Your task to perform on an android device: Go to Amazon Image 0: 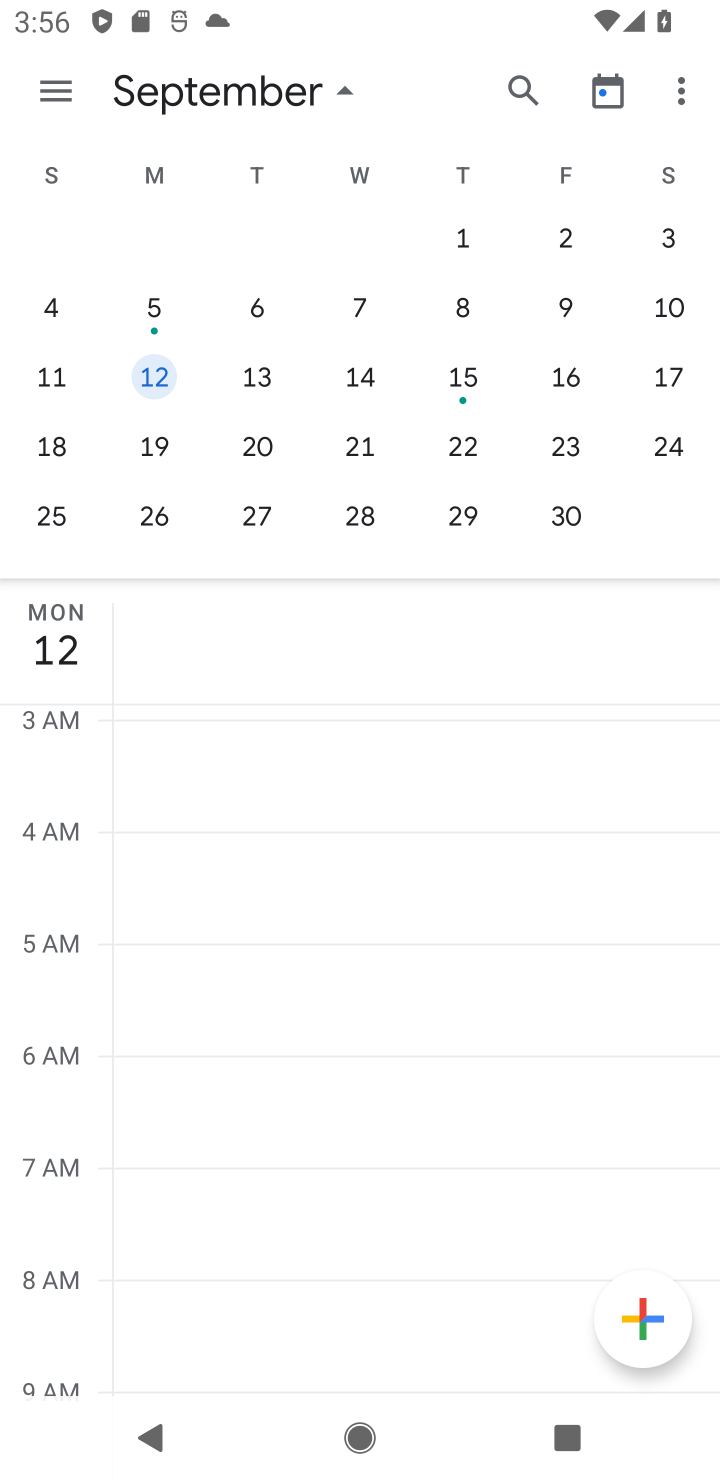
Step 0: press home button
Your task to perform on an android device: Go to Amazon Image 1: 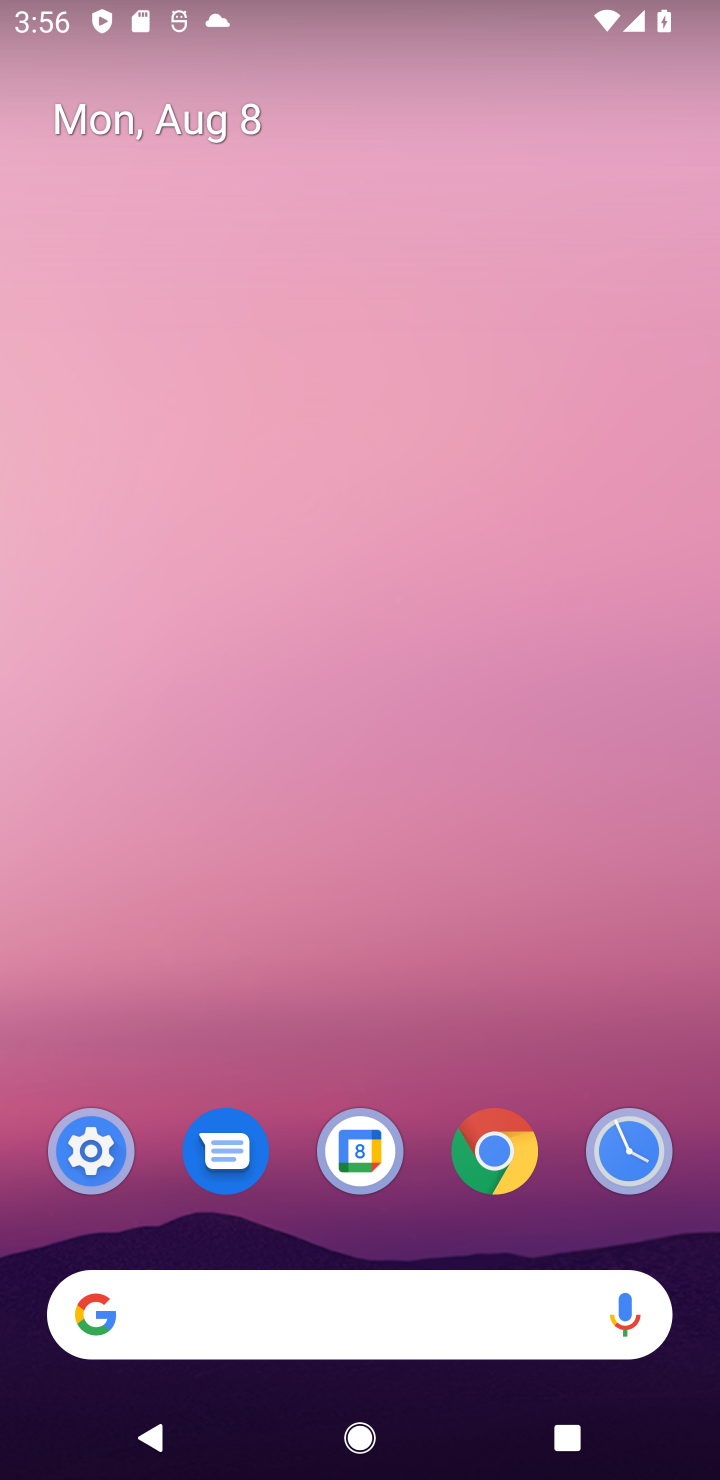
Step 1: click (475, 1190)
Your task to perform on an android device: Go to Amazon Image 2: 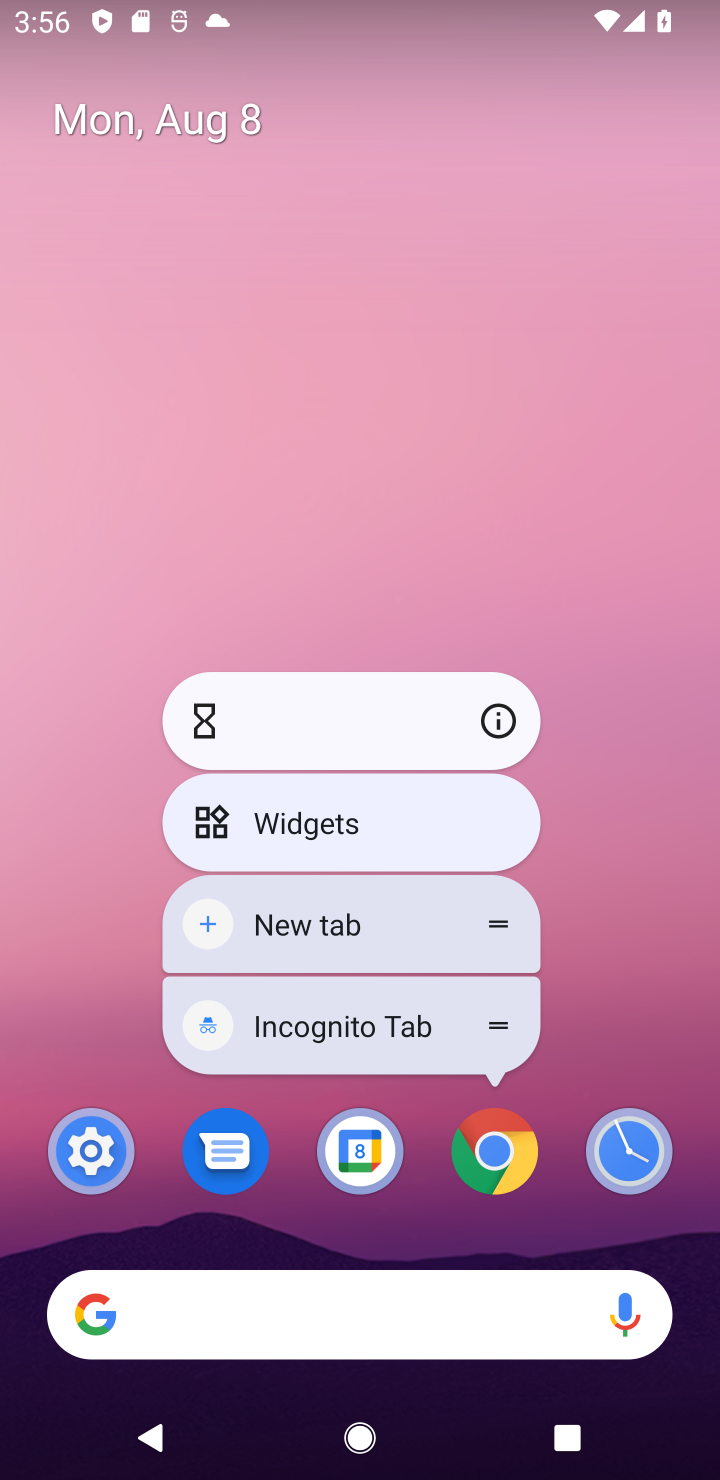
Step 2: click (477, 1192)
Your task to perform on an android device: Go to Amazon Image 3: 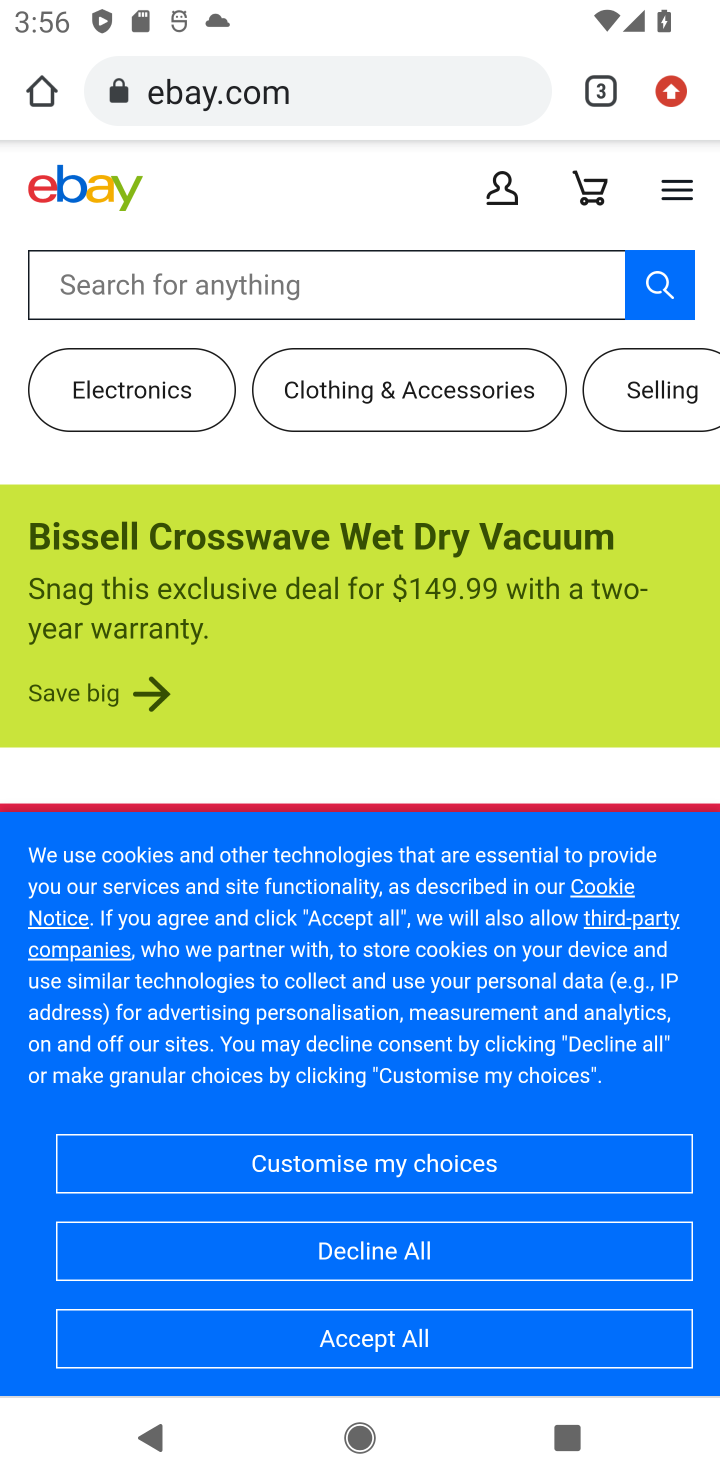
Step 3: click (593, 92)
Your task to perform on an android device: Go to Amazon Image 4: 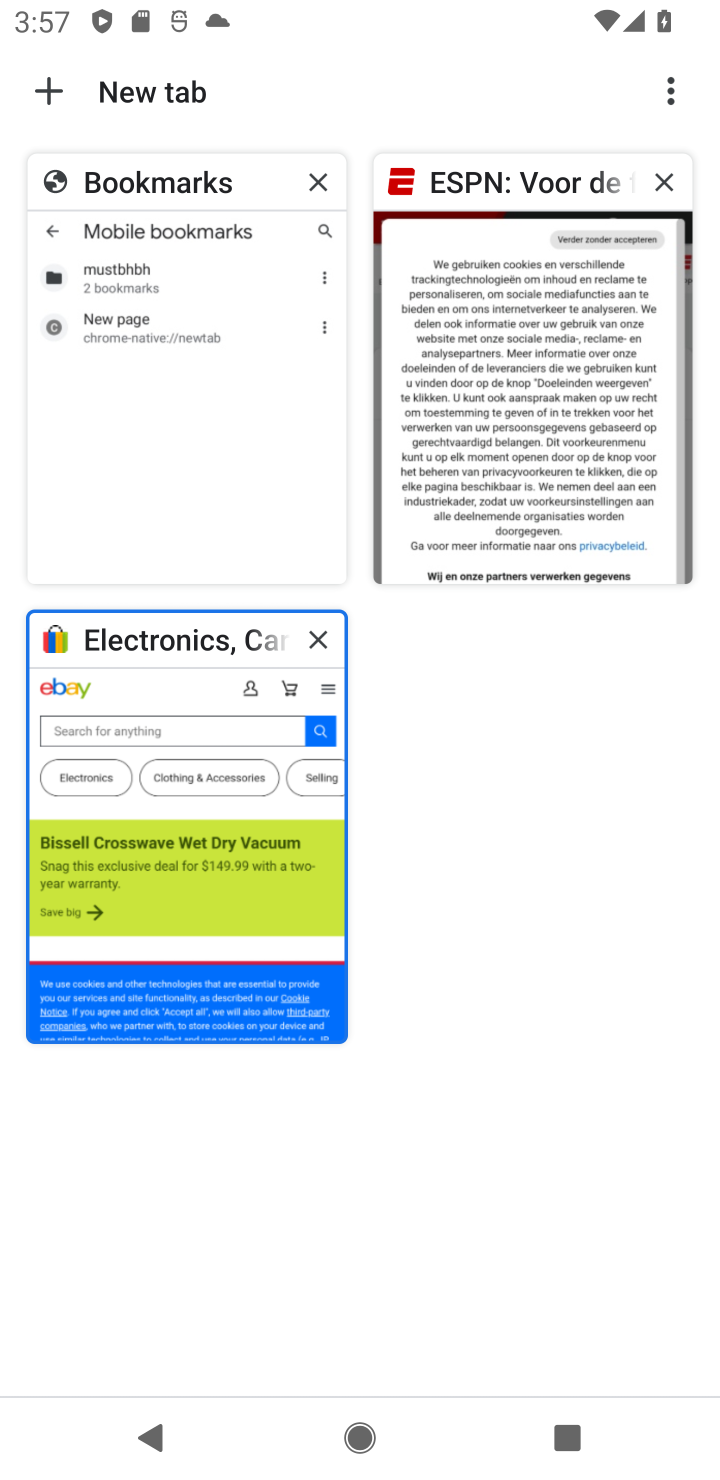
Step 4: click (47, 94)
Your task to perform on an android device: Go to Amazon Image 5: 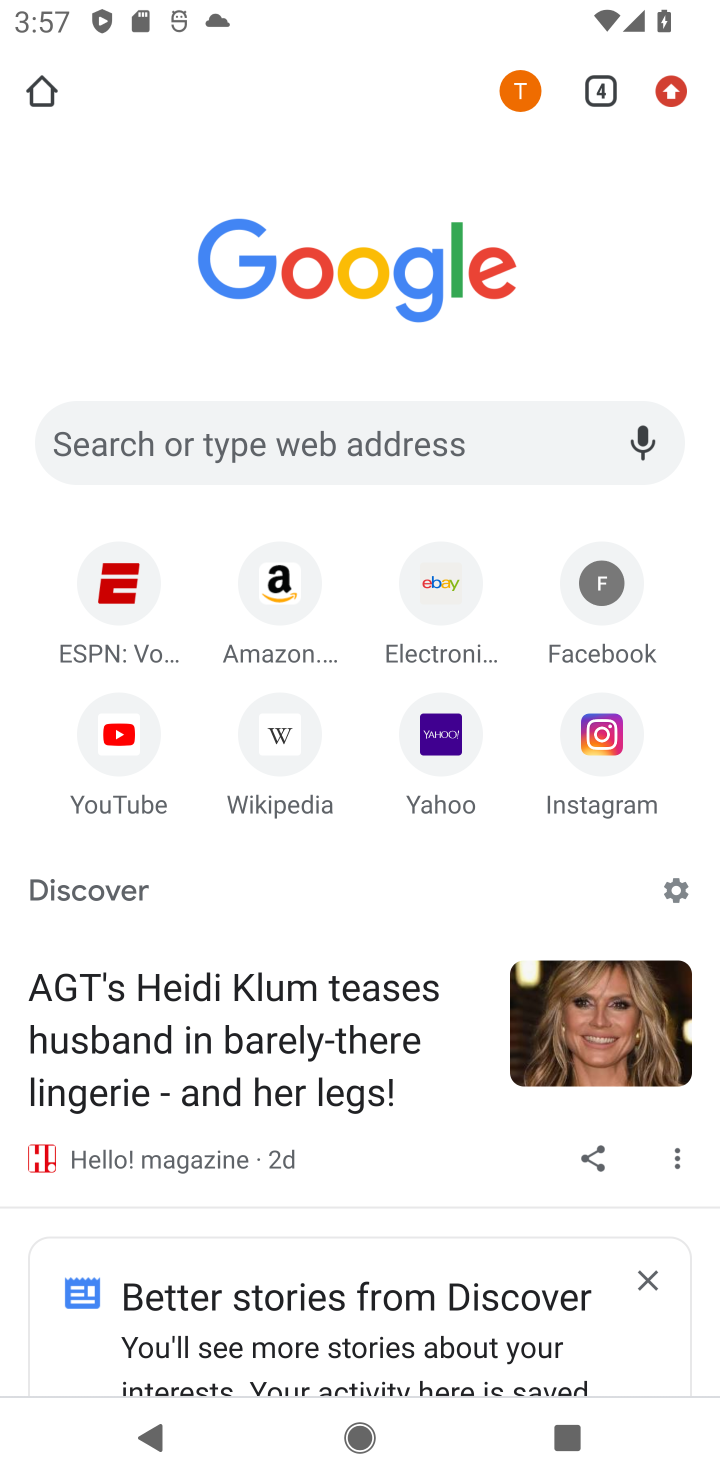
Step 5: click (309, 611)
Your task to perform on an android device: Go to Amazon Image 6: 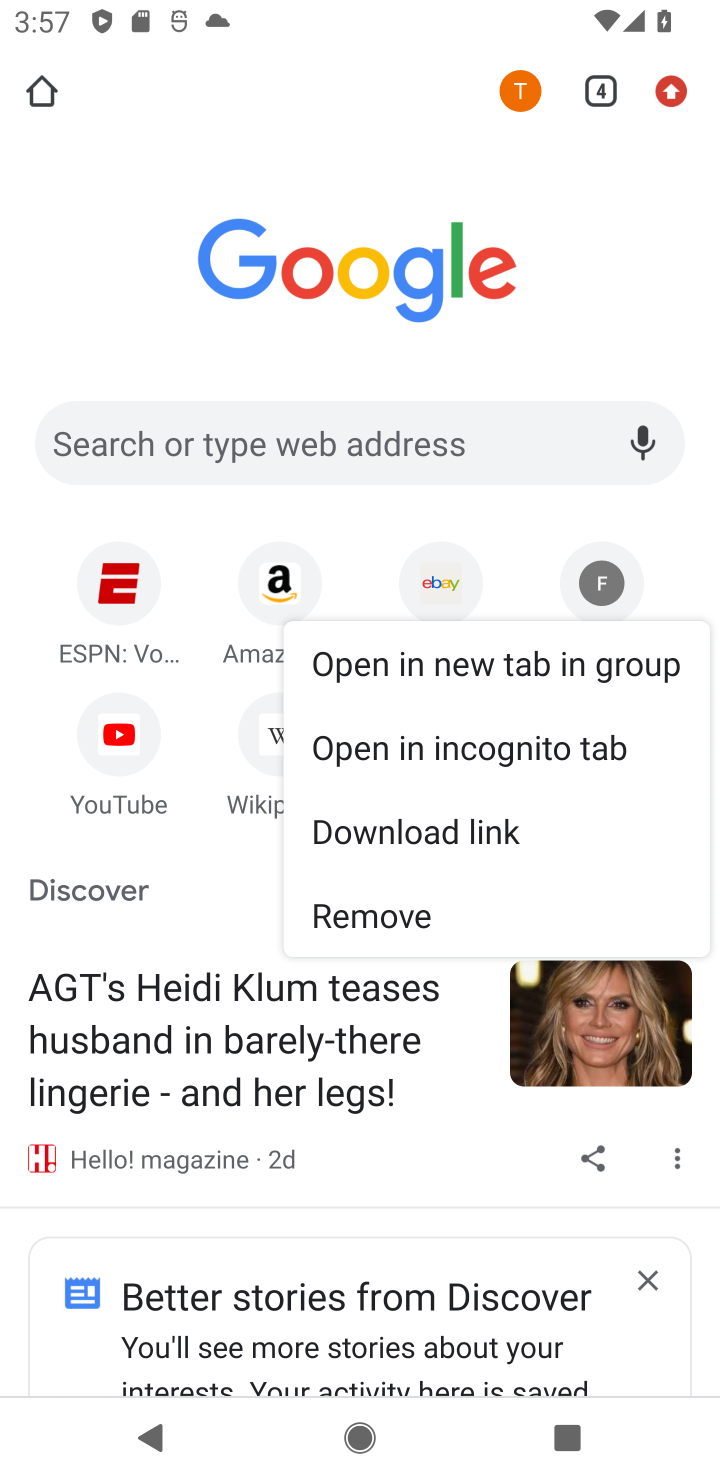
Step 6: click (250, 598)
Your task to perform on an android device: Go to Amazon Image 7: 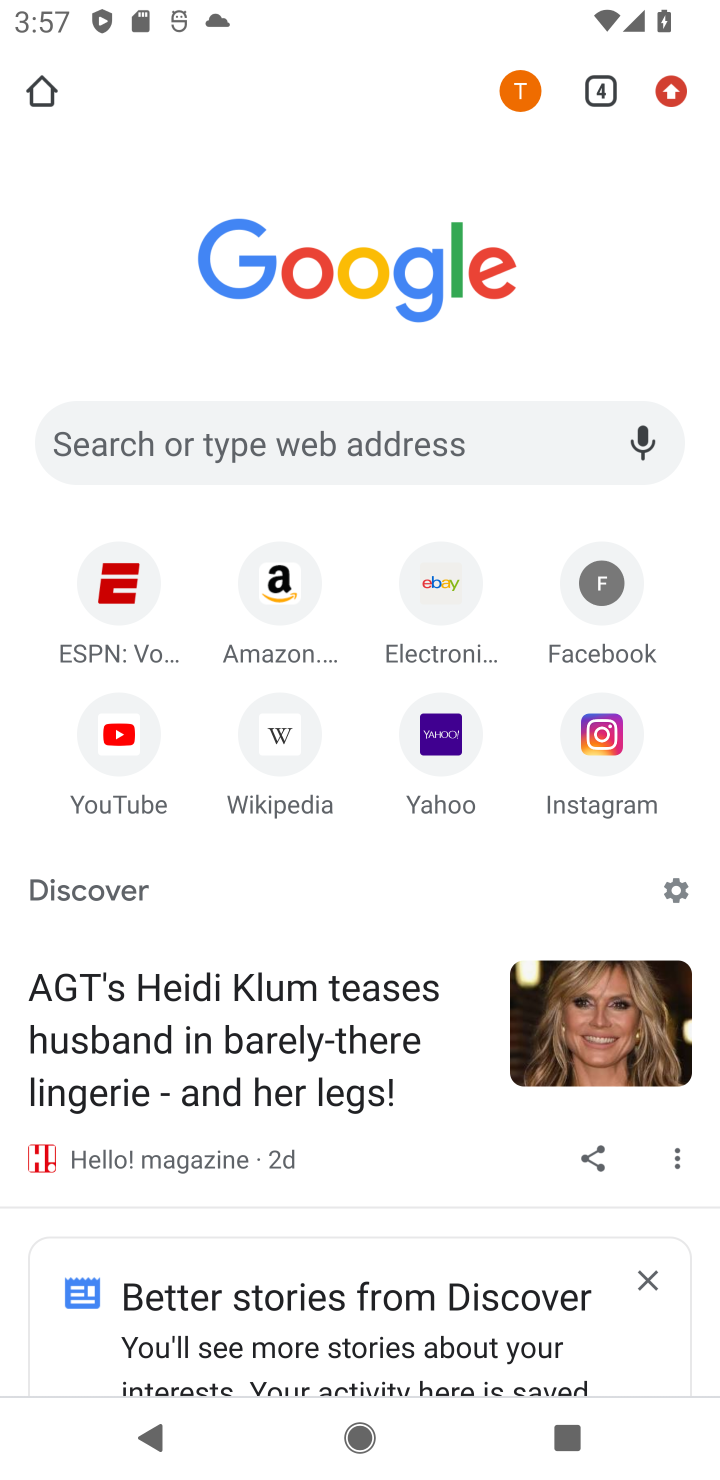
Step 7: click (263, 598)
Your task to perform on an android device: Go to Amazon Image 8: 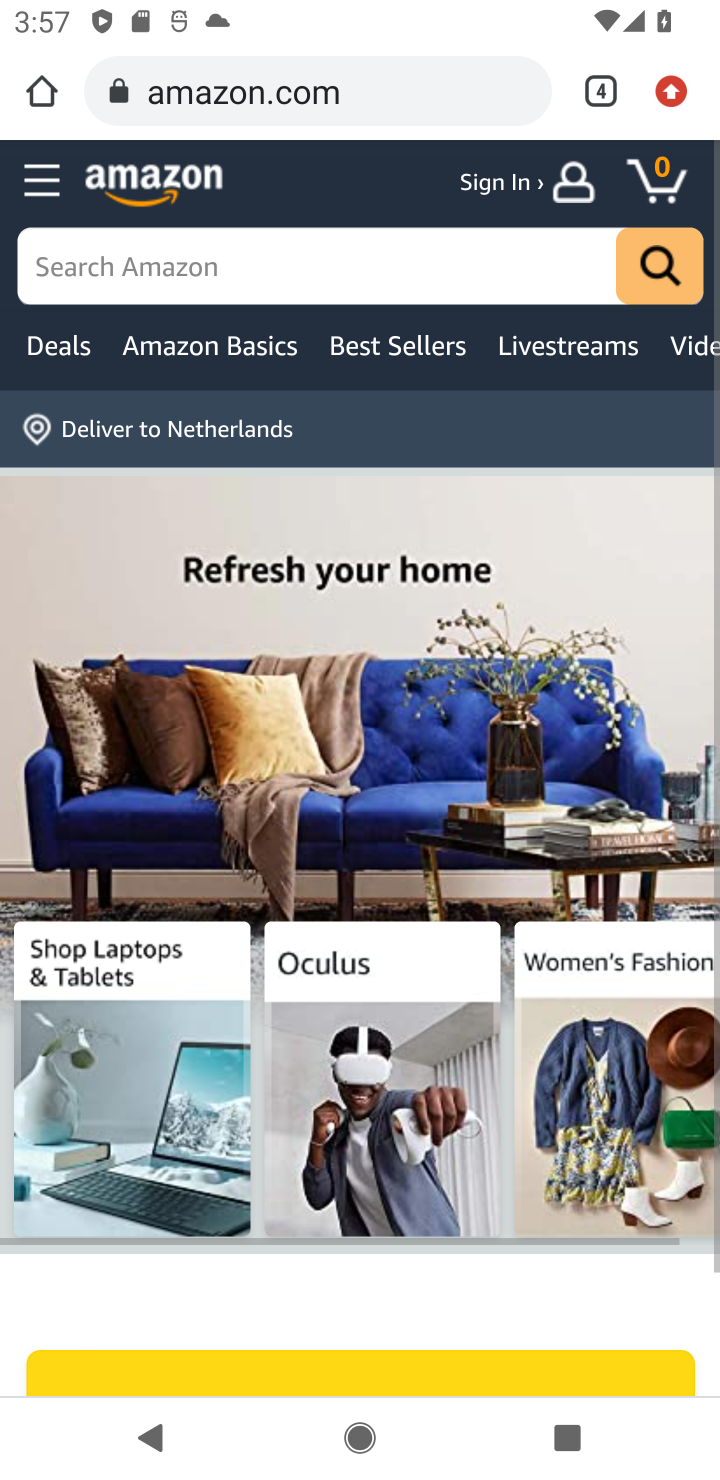
Step 8: task complete